Your task to perform on an android device: What's the weather going to be this weekend? Image 0: 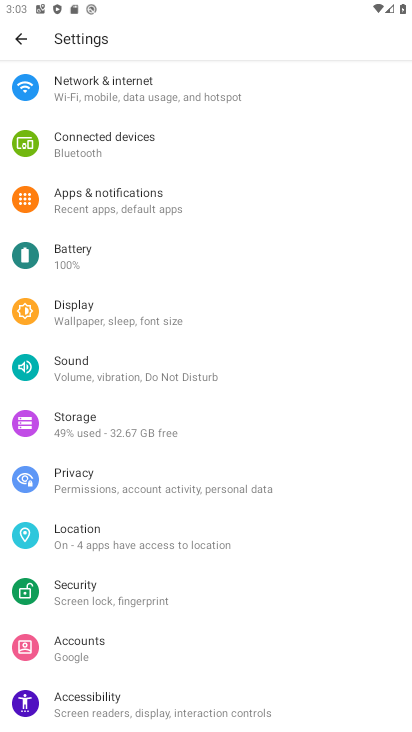
Step 0: press home button
Your task to perform on an android device: What's the weather going to be this weekend? Image 1: 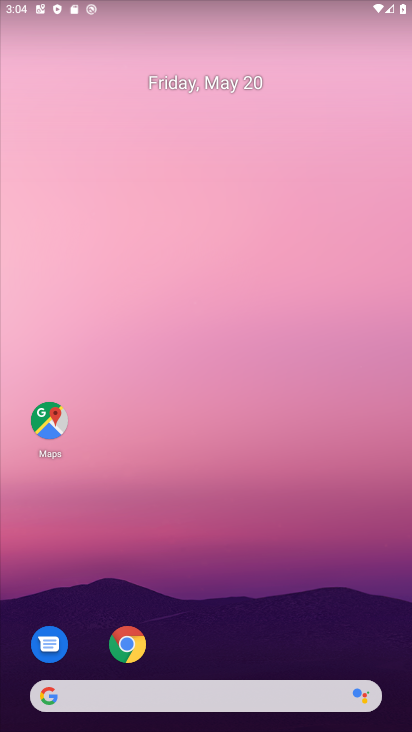
Step 1: click (220, 702)
Your task to perform on an android device: What's the weather going to be this weekend? Image 2: 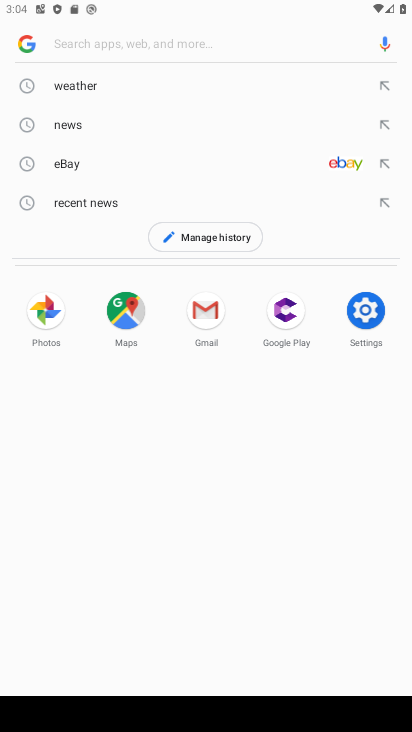
Step 2: click (160, 88)
Your task to perform on an android device: What's the weather going to be this weekend? Image 3: 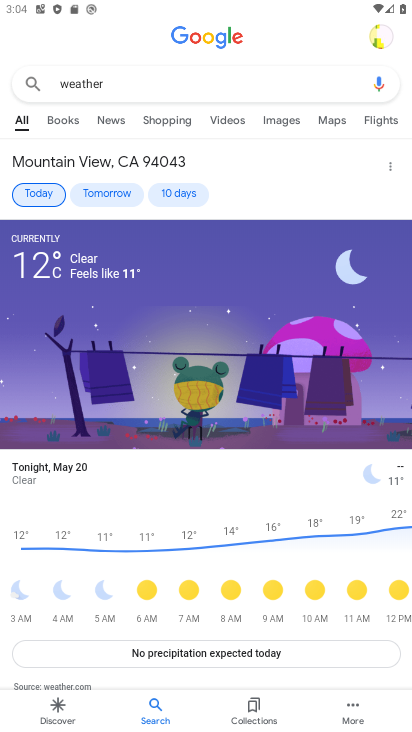
Step 3: click (188, 187)
Your task to perform on an android device: What's the weather going to be this weekend? Image 4: 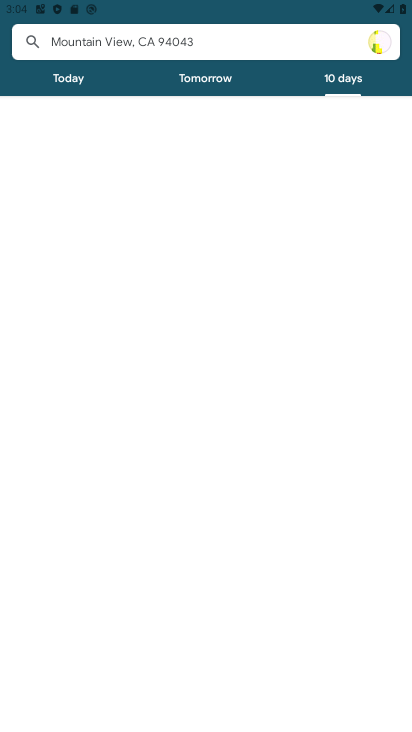
Step 4: task complete